Your task to perform on an android device: Open Reddit.com Image 0: 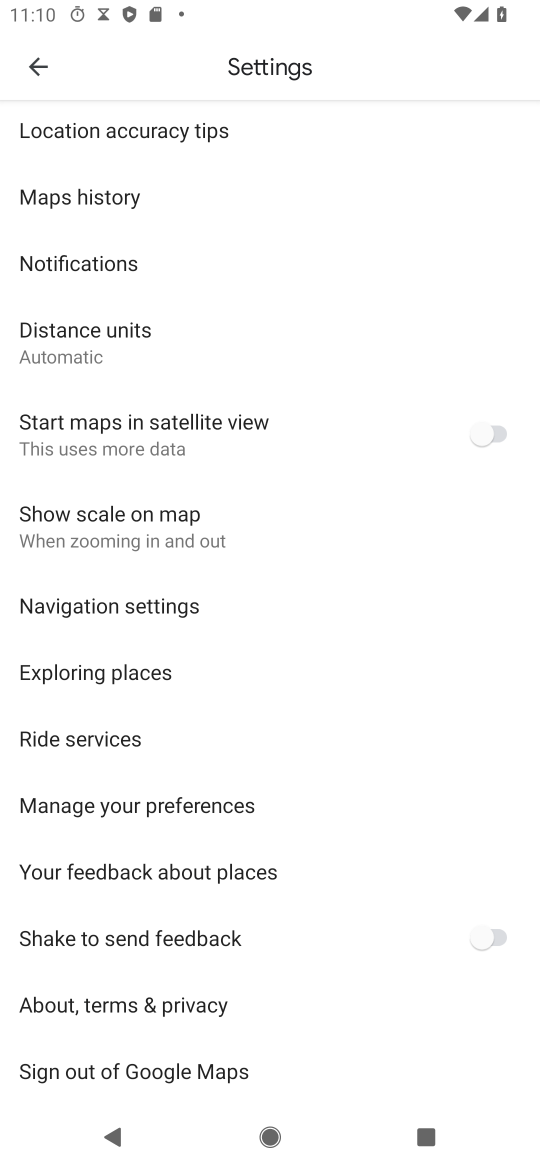
Step 0: press back button
Your task to perform on an android device: Open Reddit.com Image 1: 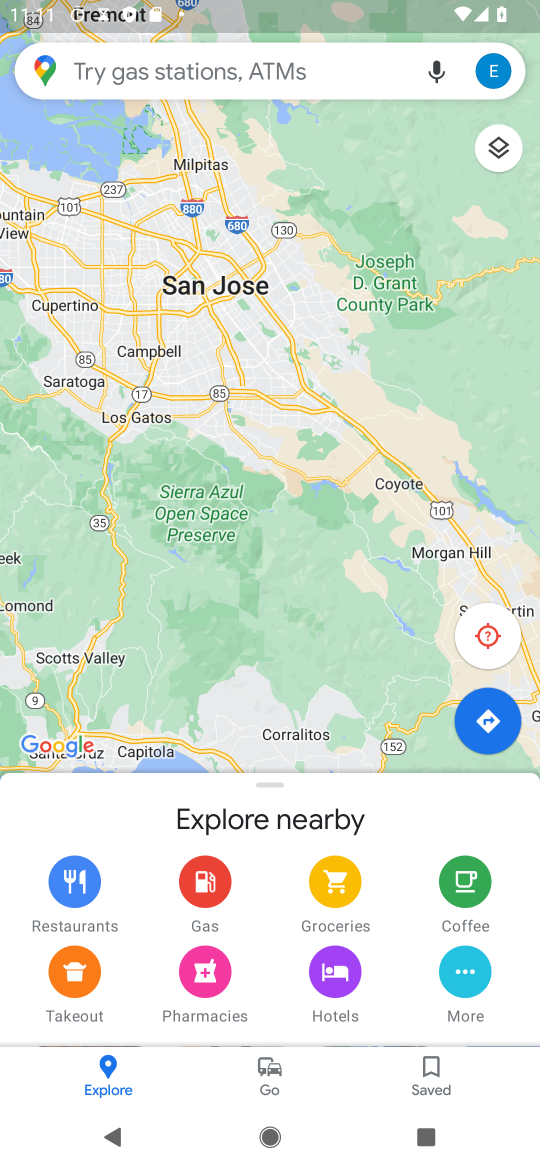
Step 1: press home button
Your task to perform on an android device: Open Reddit.com Image 2: 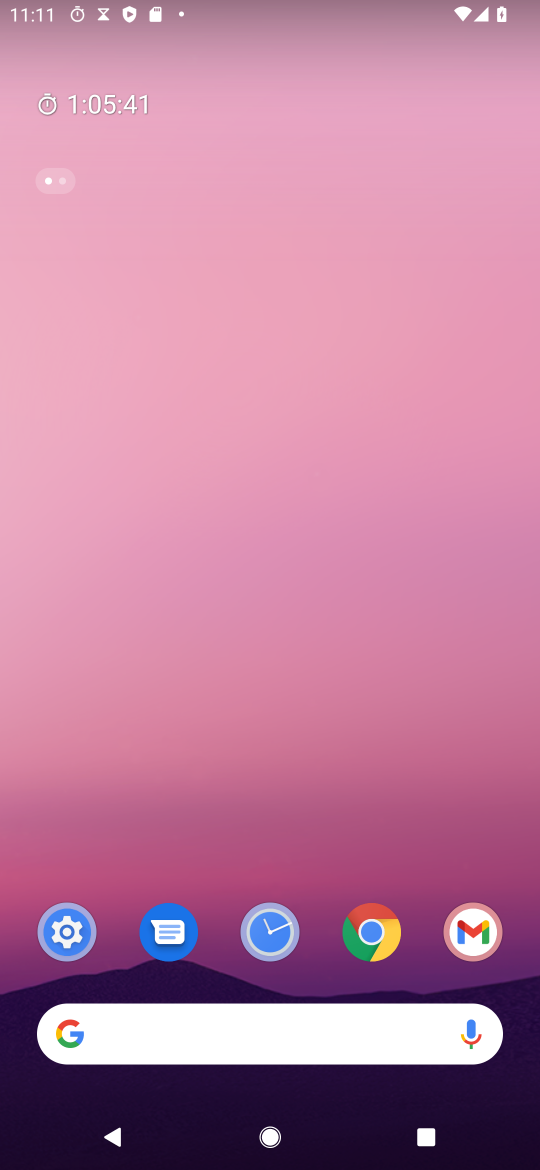
Step 2: click (373, 935)
Your task to perform on an android device: Open Reddit.com Image 3: 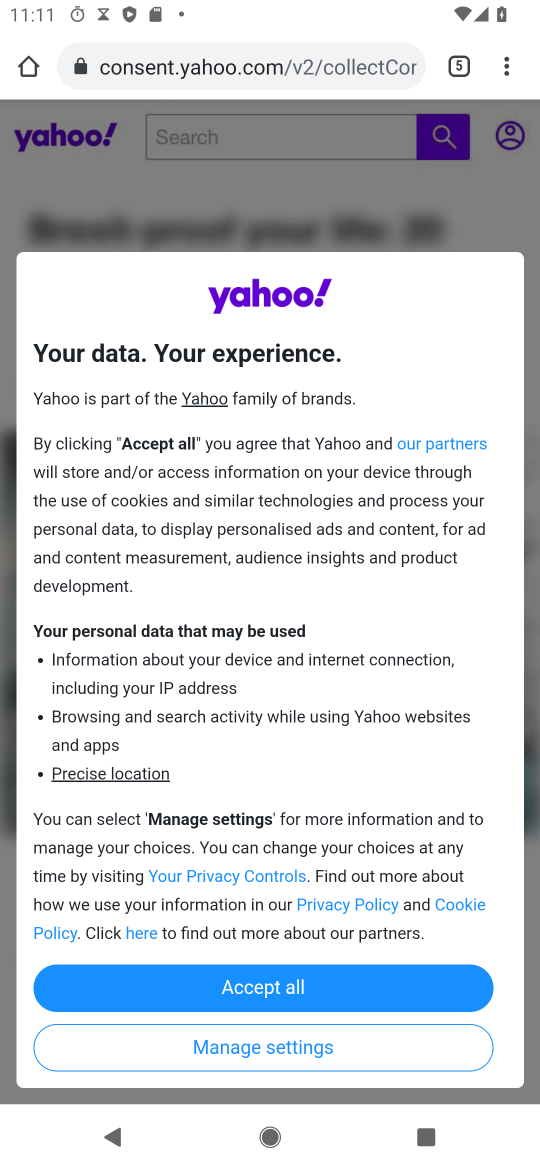
Step 3: click (343, 55)
Your task to perform on an android device: Open Reddit.com Image 4: 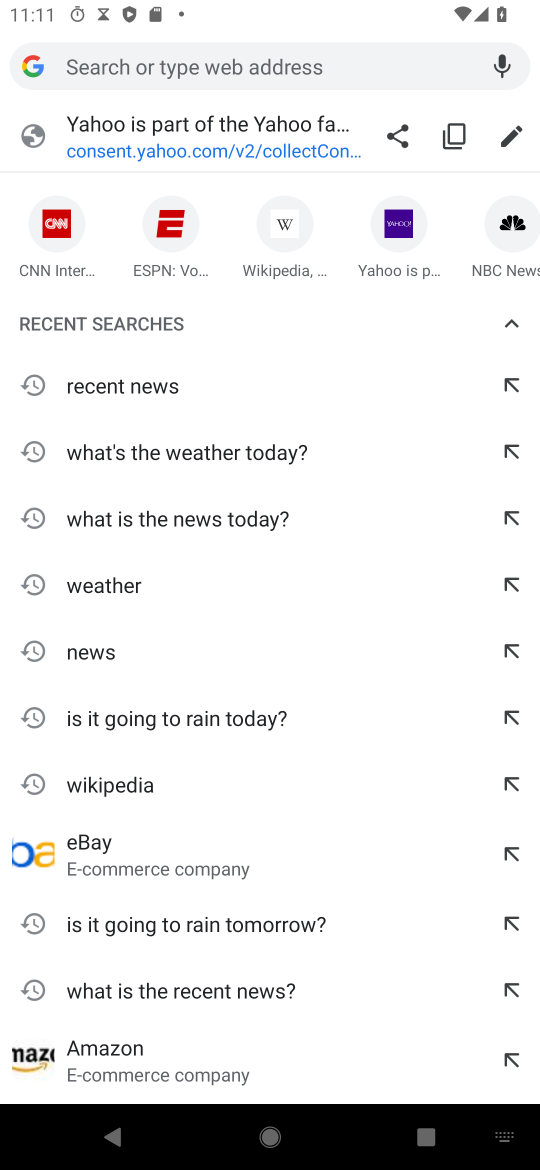
Step 4: type "reddit.com"
Your task to perform on an android device: Open Reddit.com Image 5: 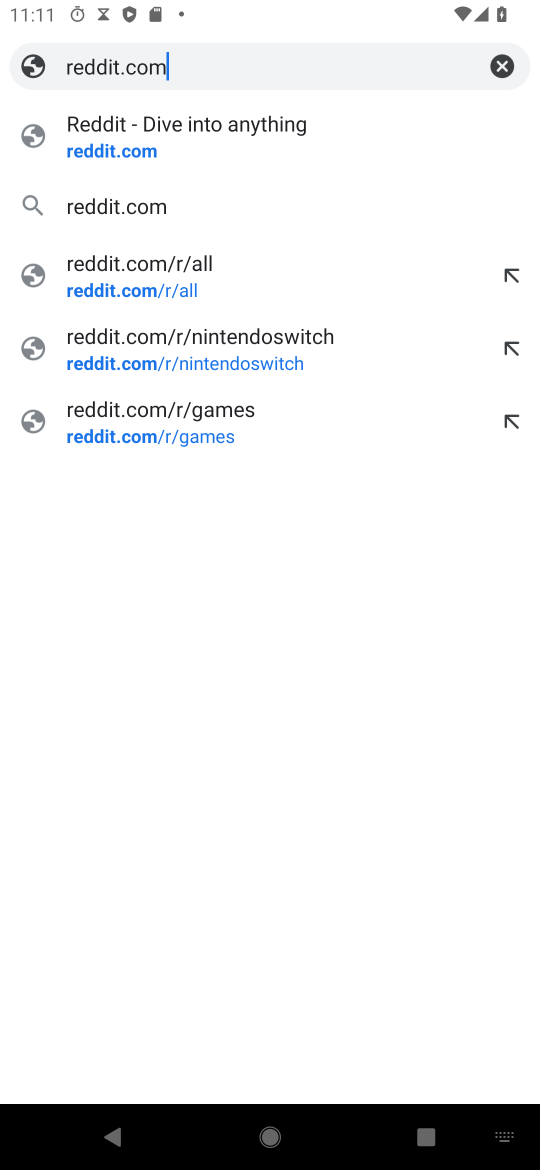
Step 5: click (171, 204)
Your task to perform on an android device: Open Reddit.com Image 6: 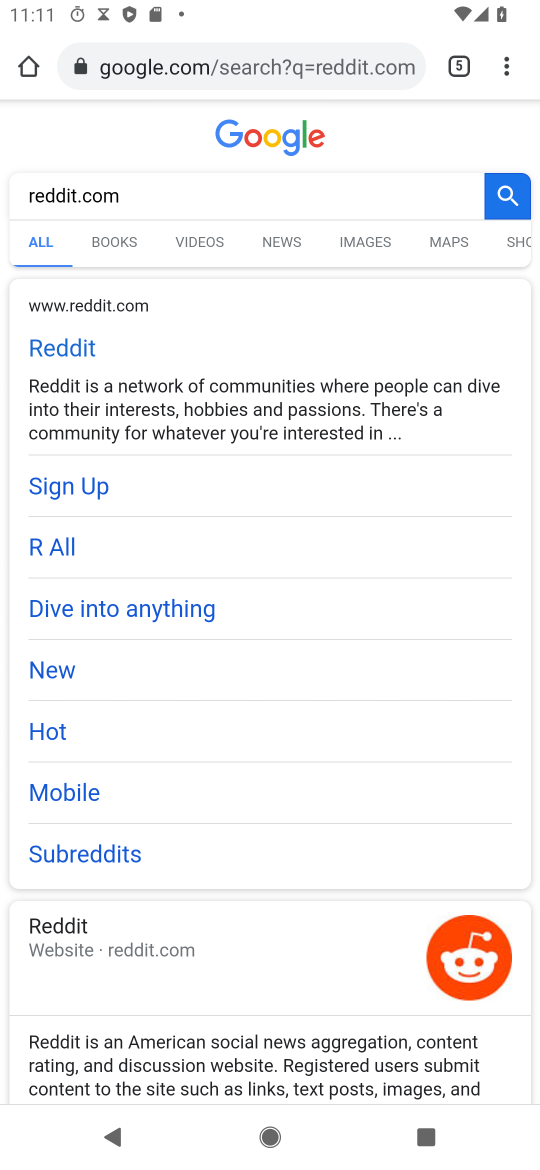
Step 6: click (65, 360)
Your task to perform on an android device: Open Reddit.com Image 7: 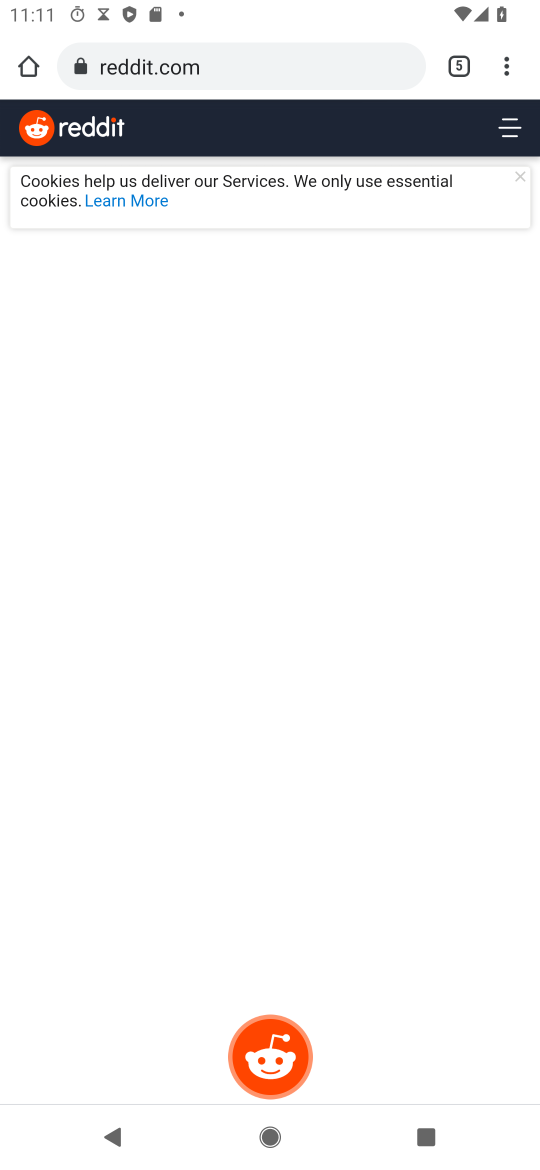
Step 7: task complete